Your task to perform on an android device: turn off notifications settings in the gmail app Image 0: 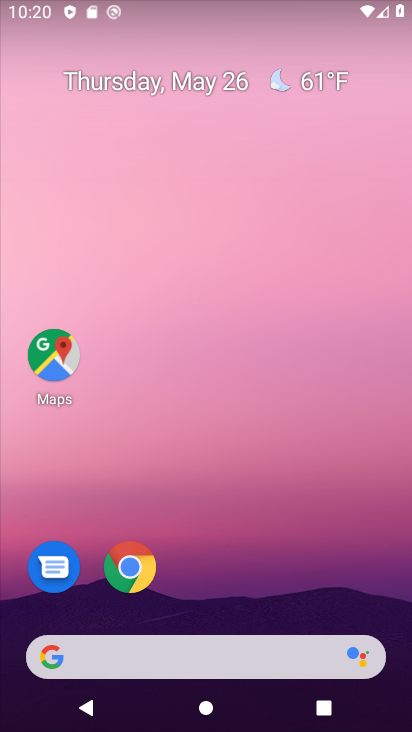
Step 0: press home button
Your task to perform on an android device: turn off notifications settings in the gmail app Image 1: 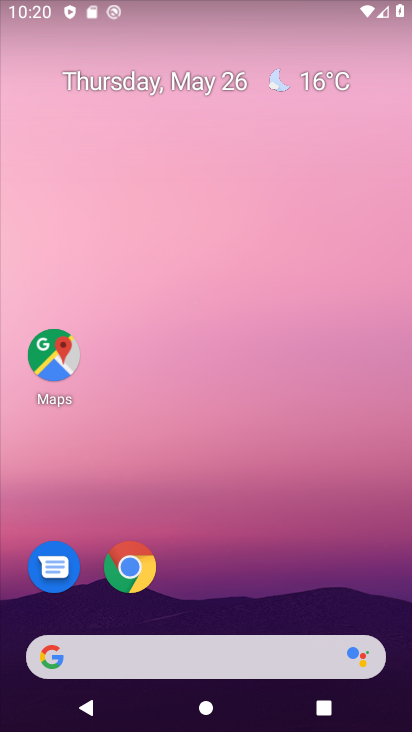
Step 1: drag from (208, 514) to (256, 37)
Your task to perform on an android device: turn off notifications settings in the gmail app Image 2: 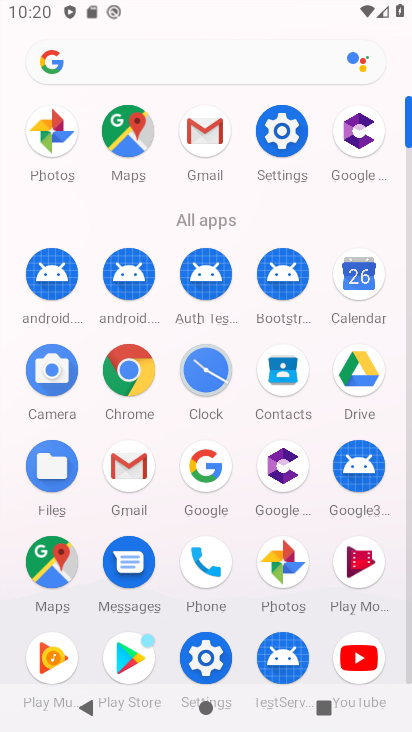
Step 2: click (209, 127)
Your task to perform on an android device: turn off notifications settings in the gmail app Image 3: 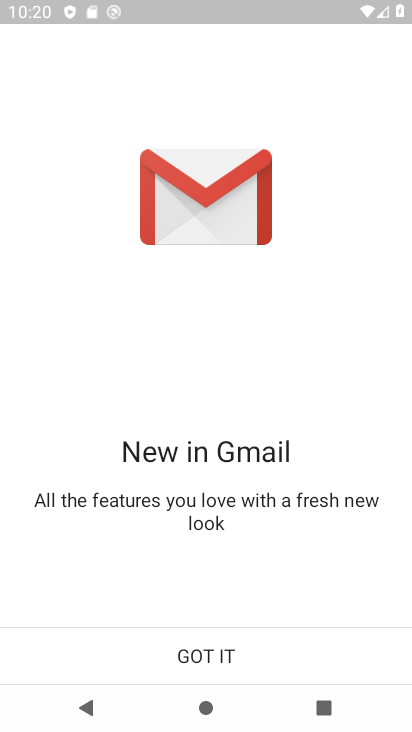
Step 3: click (216, 661)
Your task to perform on an android device: turn off notifications settings in the gmail app Image 4: 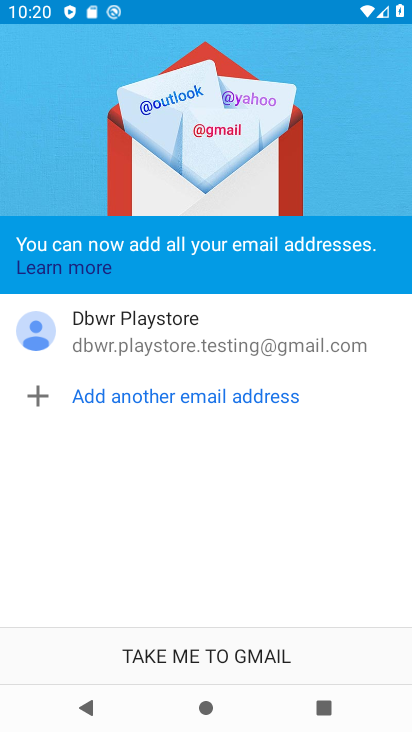
Step 4: click (204, 663)
Your task to perform on an android device: turn off notifications settings in the gmail app Image 5: 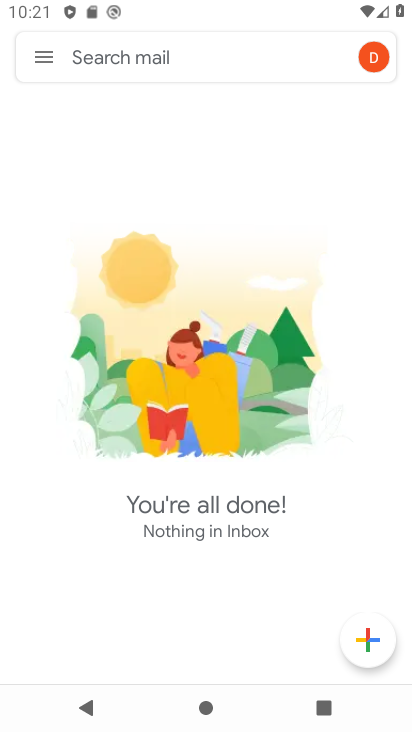
Step 5: click (40, 52)
Your task to perform on an android device: turn off notifications settings in the gmail app Image 6: 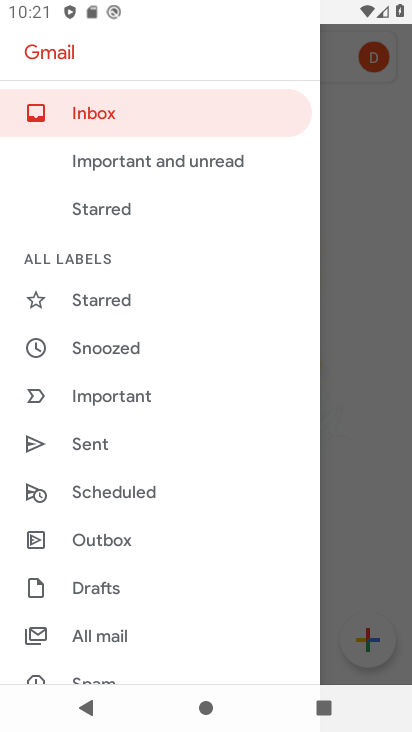
Step 6: drag from (131, 650) to (142, 127)
Your task to perform on an android device: turn off notifications settings in the gmail app Image 7: 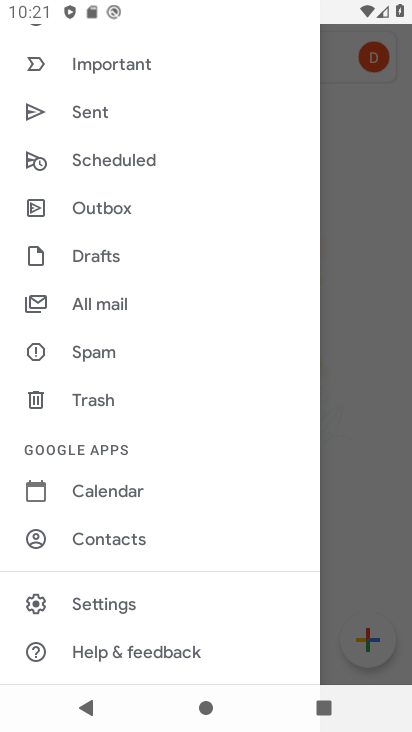
Step 7: click (141, 611)
Your task to perform on an android device: turn off notifications settings in the gmail app Image 8: 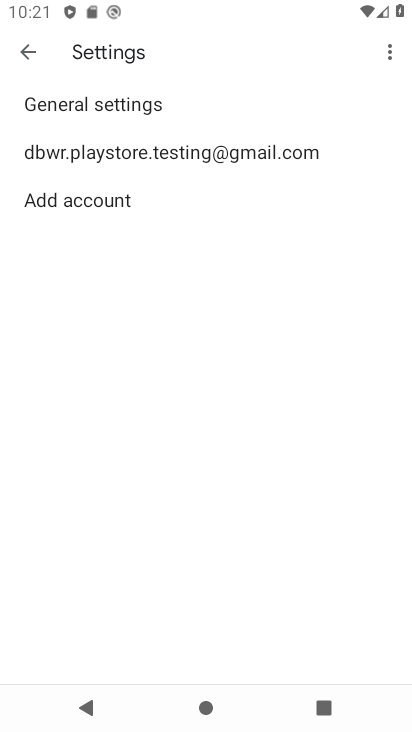
Step 8: click (183, 101)
Your task to perform on an android device: turn off notifications settings in the gmail app Image 9: 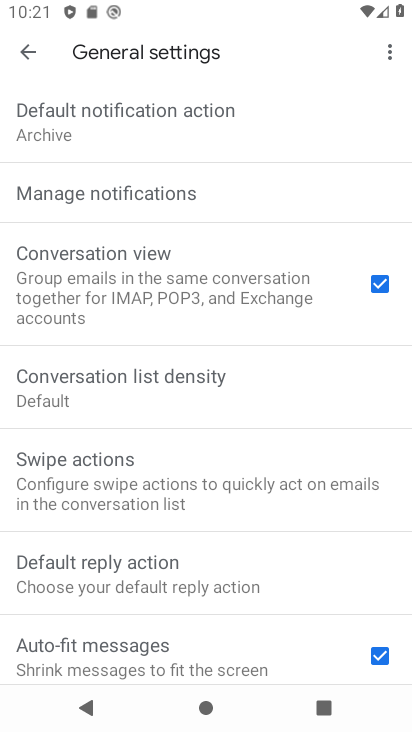
Step 9: click (216, 191)
Your task to perform on an android device: turn off notifications settings in the gmail app Image 10: 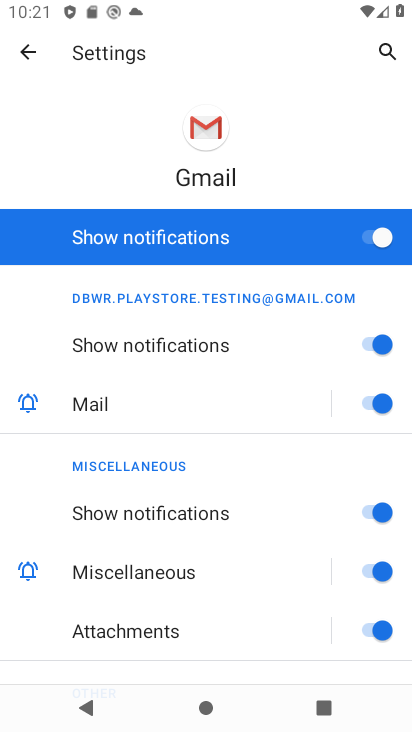
Step 10: click (366, 231)
Your task to perform on an android device: turn off notifications settings in the gmail app Image 11: 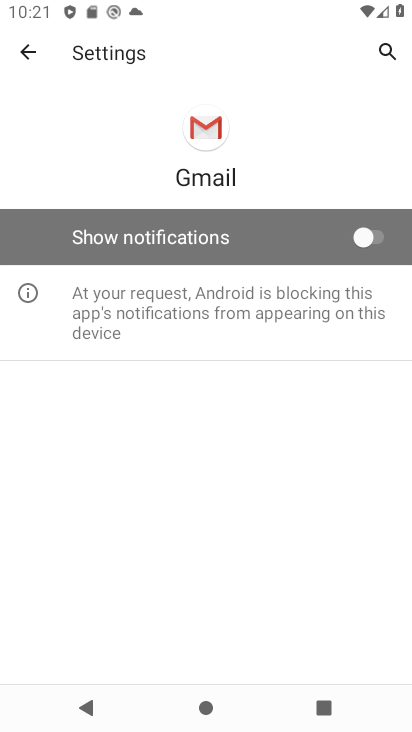
Step 11: task complete